Your task to perform on an android device: check storage Image 0: 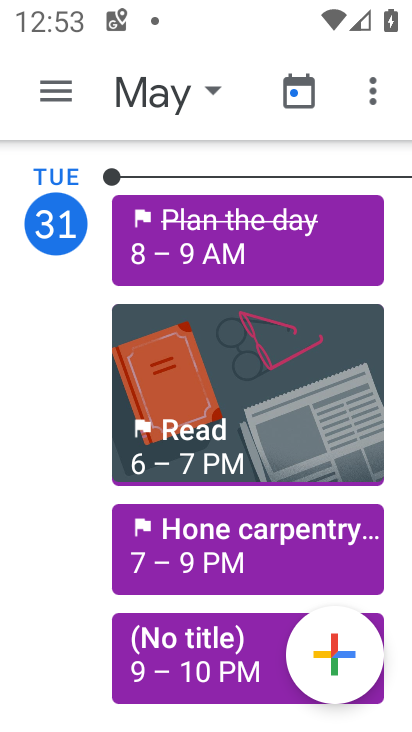
Step 0: press home button
Your task to perform on an android device: check storage Image 1: 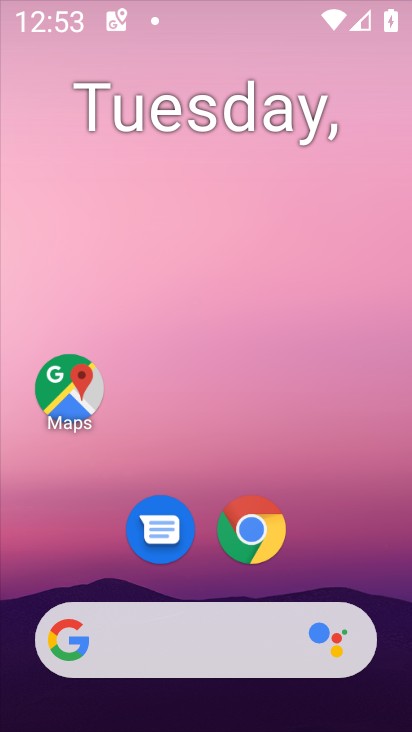
Step 1: drag from (205, 505) to (257, 19)
Your task to perform on an android device: check storage Image 2: 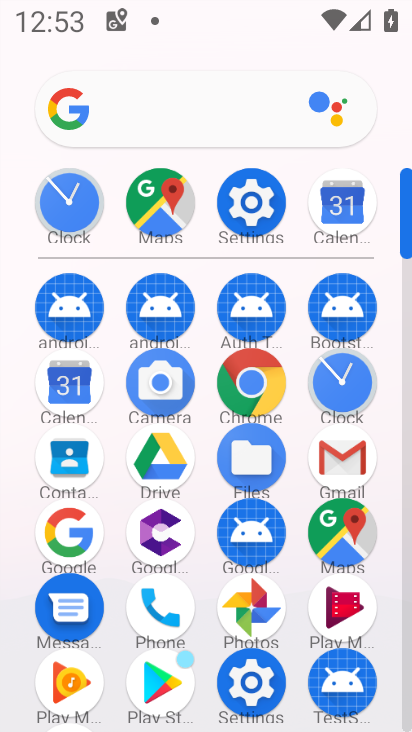
Step 2: click (252, 198)
Your task to perform on an android device: check storage Image 3: 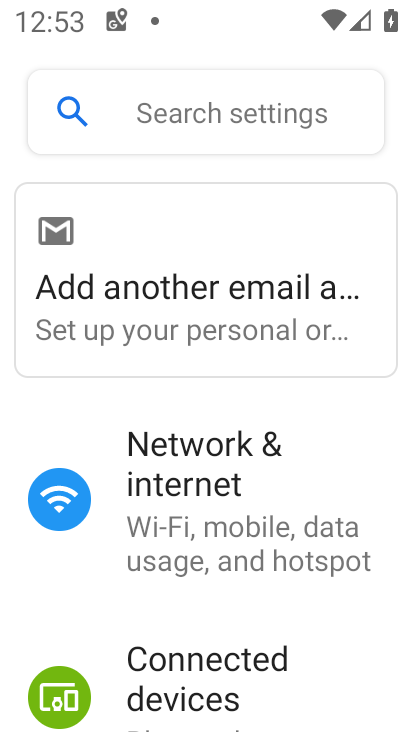
Step 3: drag from (183, 665) to (264, 95)
Your task to perform on an android device: check storage Image 4: 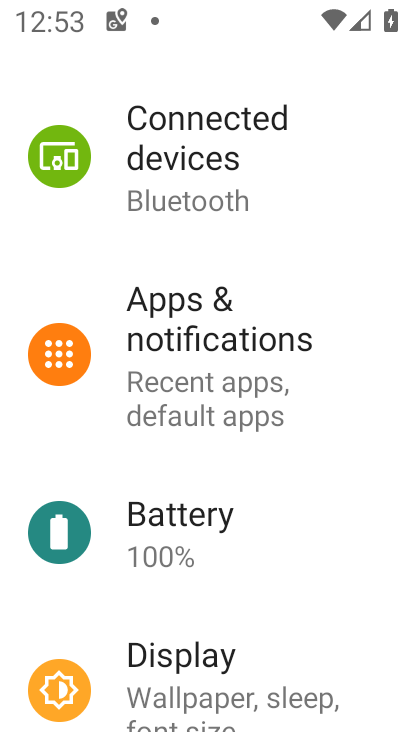
Step 4: drag from (167, 655) to (203, 129)
Your task to perform on an android device: check storage Image 5: 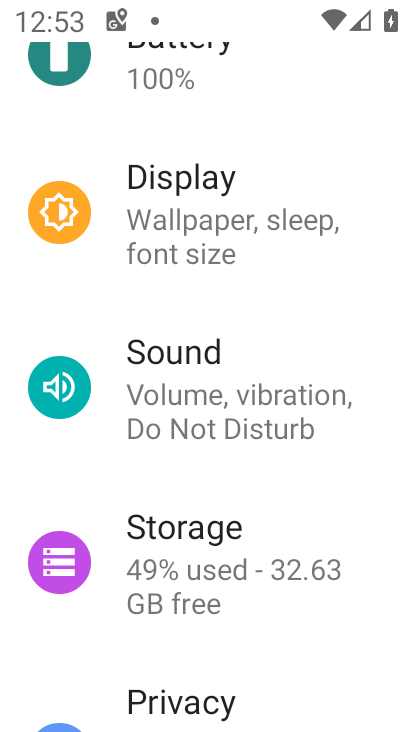
Step 5: click (185, 564)
Your task to perform on an android device: check storage Image 6: 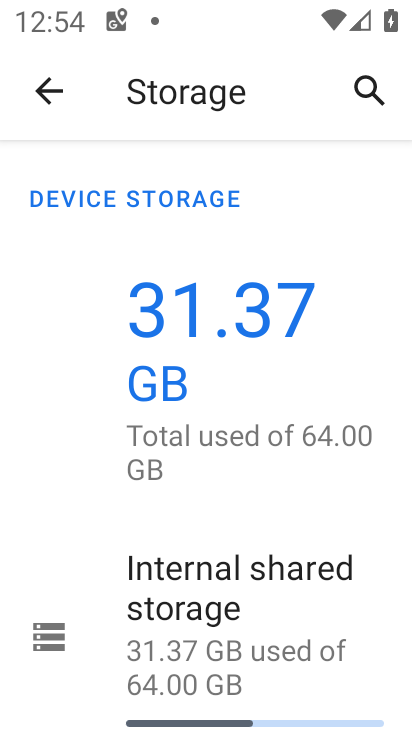
Step 6: task complete